Your task to perform on an android device: open wifi settings Image 0: 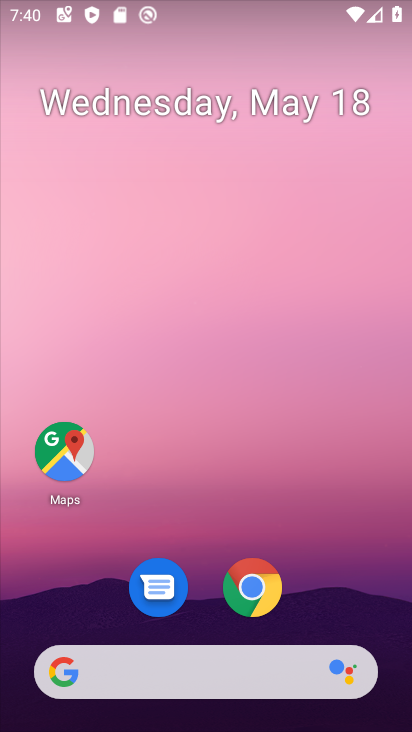
Step 0: drag from (201, 7) to (94, 692)
Your task to perform on an android device: open wifi settings Image 1: 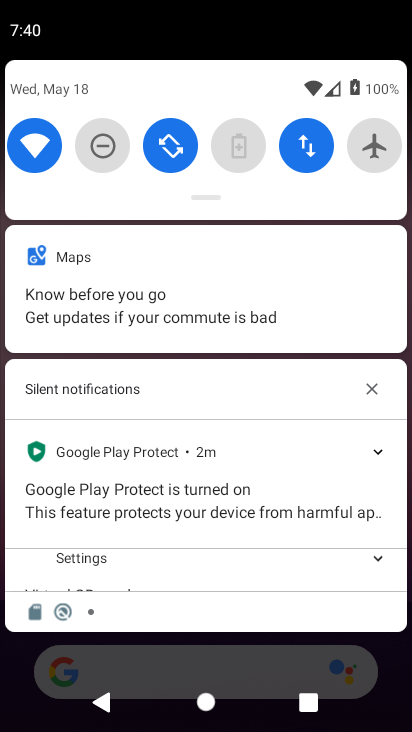
Step 1: click (43, 149)
Your task to perform on an android device: open wifi settings Image 2: 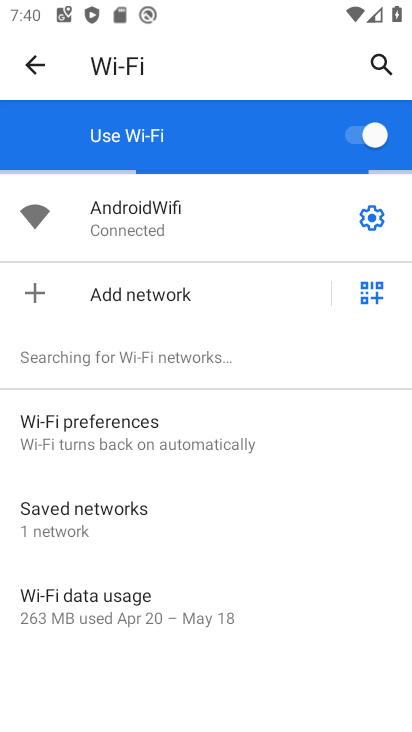
Step 2: task complete